Your task to perform on an android device: turn off javascript in the chrome app Image 0: 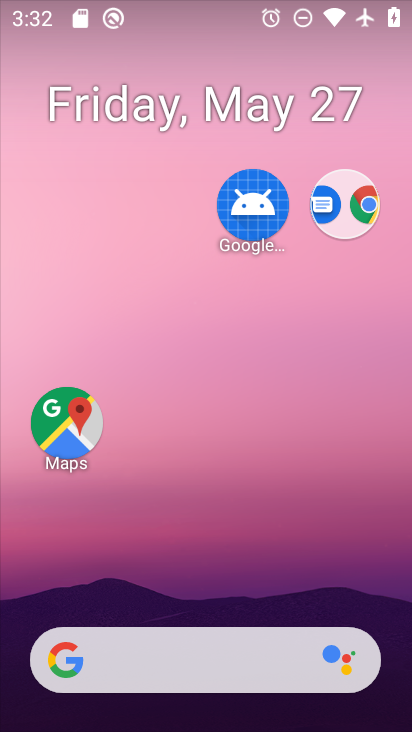
Step 0: drag from (322, 510) to (360, 141)
Your task to perform on an android device: turn off javascript in the chrome app Image 1: 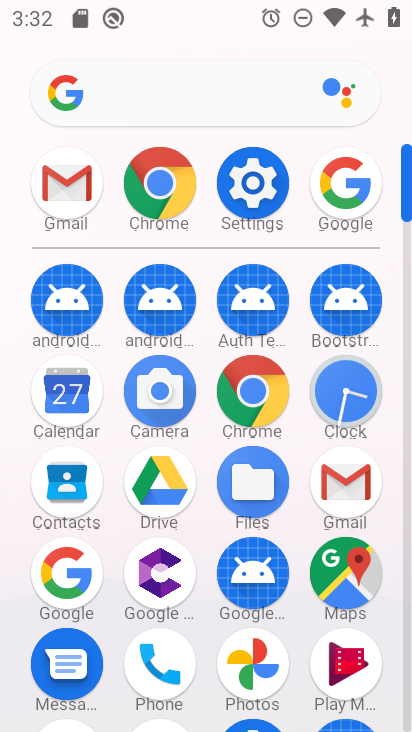
Step 1: click (244, 393)
Your task to perform on an android device: turn off javascript in the chrome app Image 2: 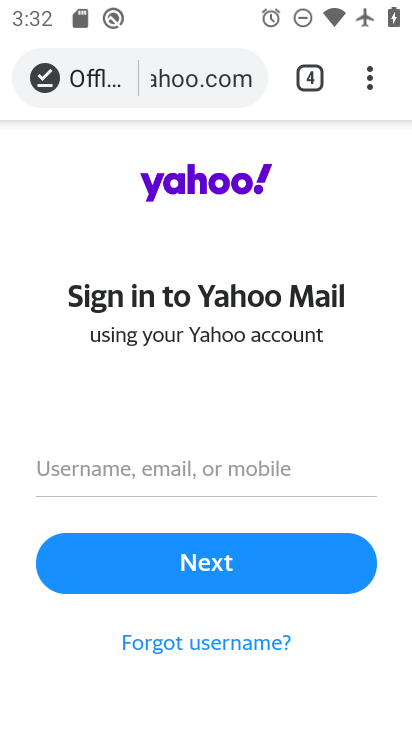
Step 2: click (371, 76)
Your task to perform on an android device: turn off javascript in the chrome app Image 3: 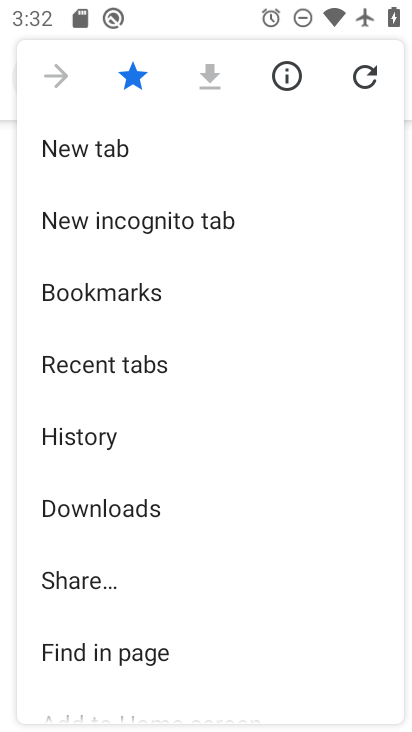
Step 3: drag from (254, 573) to (343, 252)
Your task to perform on an android device: turn off javascript in the chrome app Image 4: 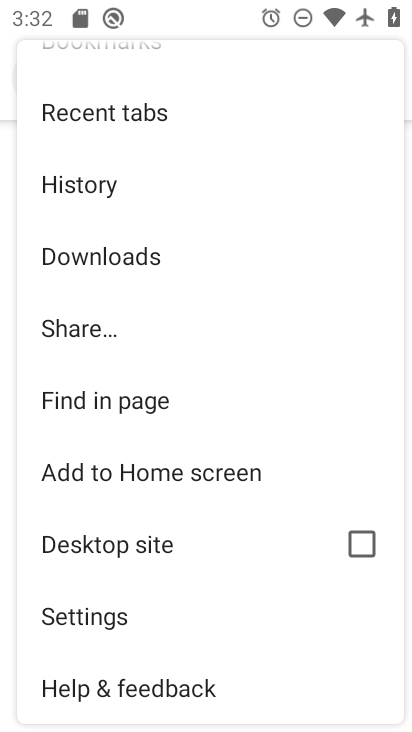
Step 4: drag from (224, 561) to (248, 432)
Your task to perform on an android device: turn off javascript in the chrome app Image 5: 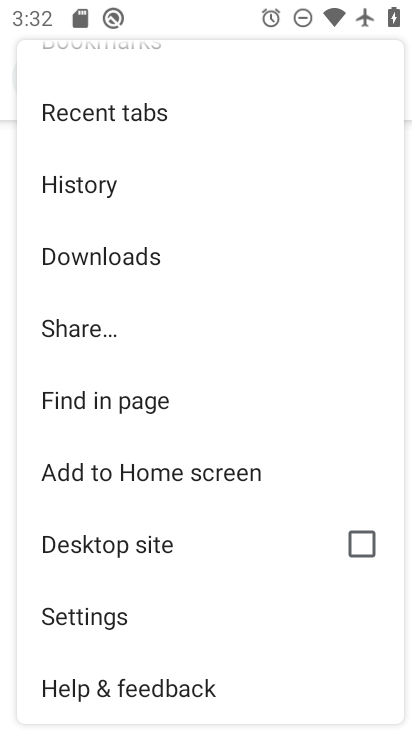
Step 5: click (110, 615)
Your task to perform on an android device: turn off javascript in the chrome app Image 6: 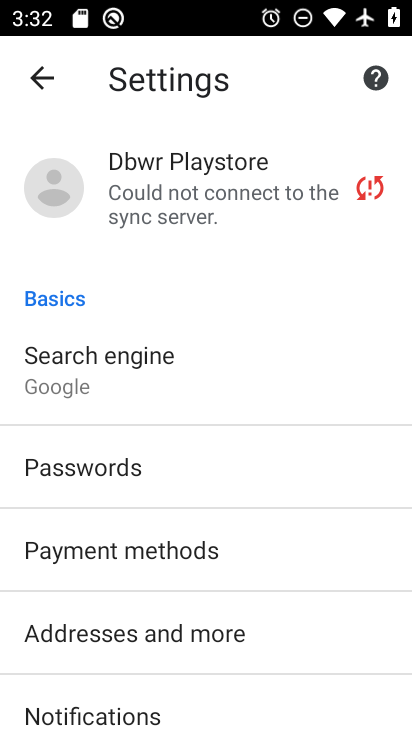
Step 6: drag from (110, 615) to (151, 406)
Your task to perform on an android device: turn off javascript in the chrome app Image 7: 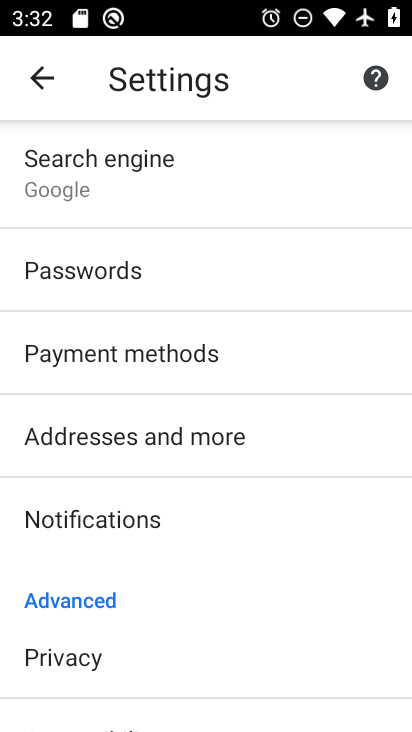
Step 7: drag from (184, 698) to (258, 340)
Your task to perform on an android device: turn off javascript in the chrome app Image 8: 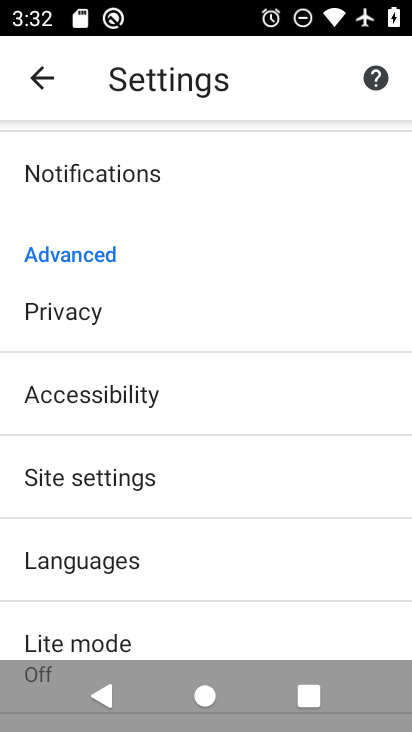
Step 8: click (134, 476)
Your task to perform on an android device: turn off javascript in the chrome app Image 9: 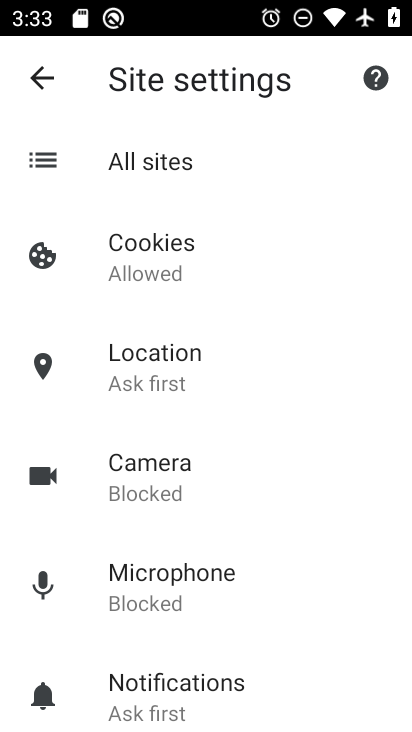
Step 9: drag from (149, 635) to (291, 187)
Your task to perform on an android device: turn off javascript in the chrome app Image 10: 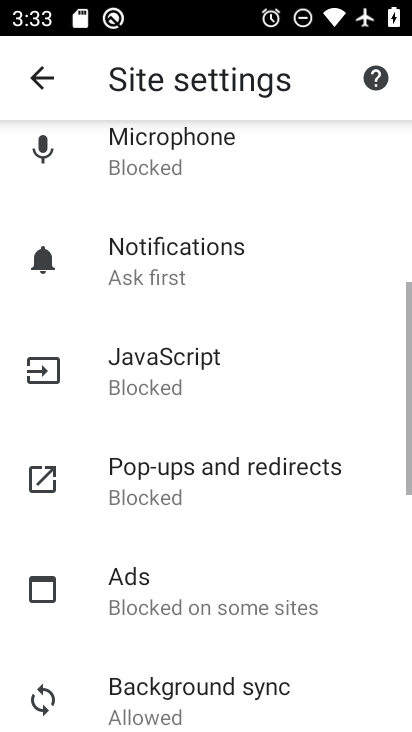
Step 10: drag from (185, 593) to (252, 346)
Your task to perform on an android device: turn off javascript in the chrome app Image 11: 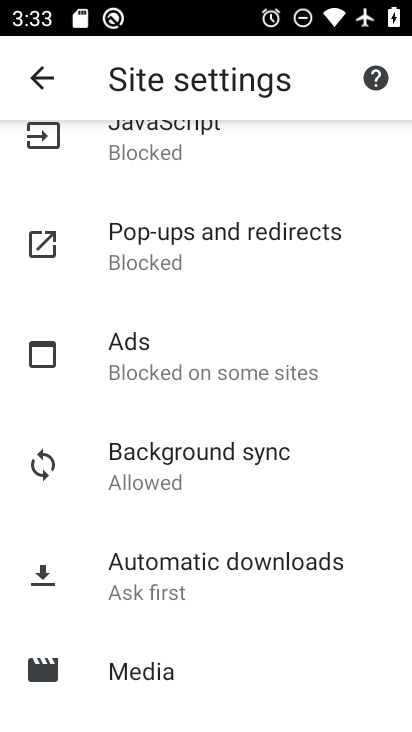
Step 11: drag from (188, 630) to (309, 306)
Your task to perform on an android device: turn off javascript in the chrome app Image 12: 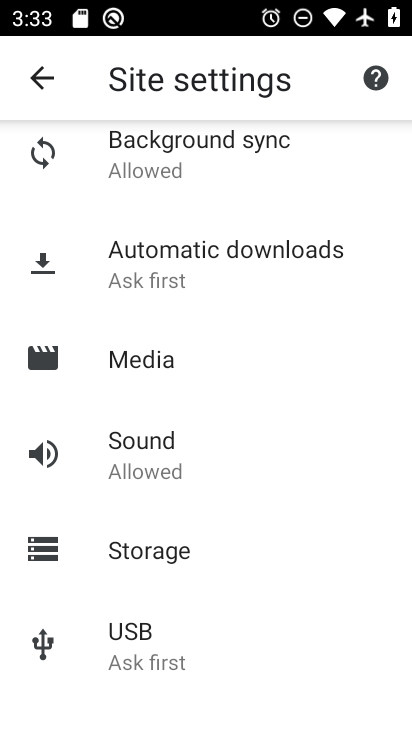
Step 12: drag from (216, 269) to (214, 376)
Your task to perform on an android device: turn off javascript in the chrome app Image 13: 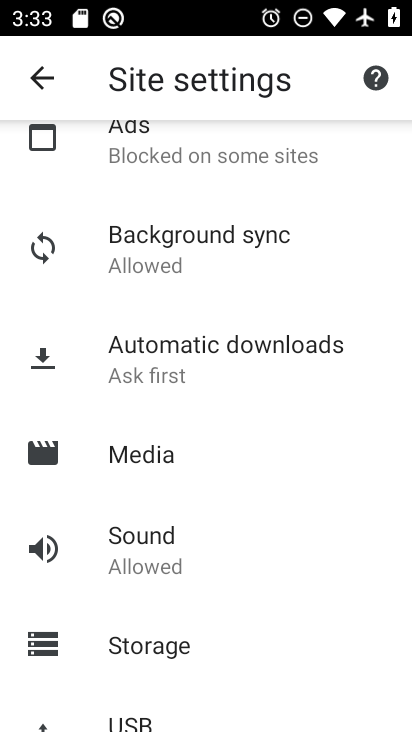
Step 13: drag from (182, 316) to (203, 633)
Your task to perform on an android device: turn off javascript in the chrome app Image 14: 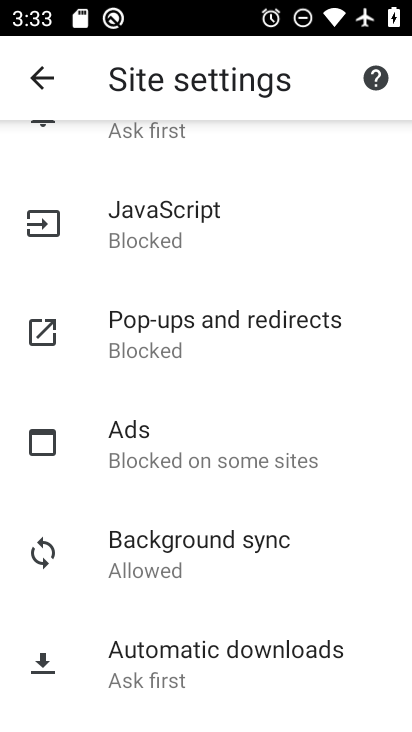
Step 14: click (231, 247)
Your task to perform on an android device: turn off javascript in the chrome app Image 15: 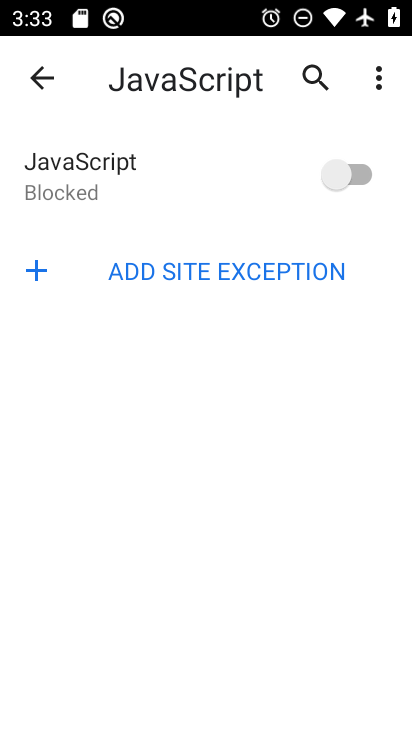
Step 15: task complete